Your task to perform on an android device: Open the map Image 0: 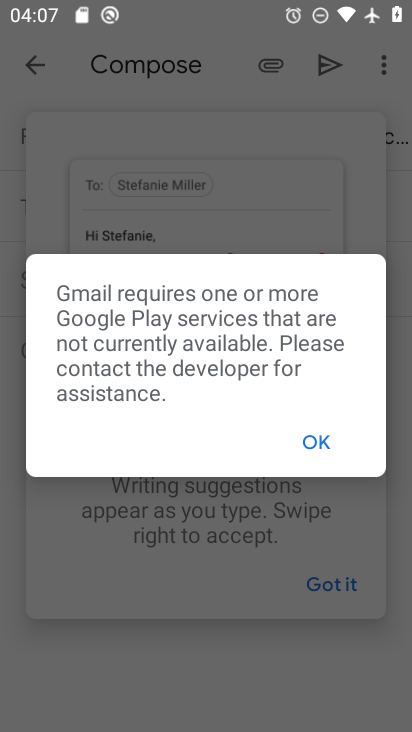
Step 0: press home button
Your task to perform on an android device: Open the map Image 1: 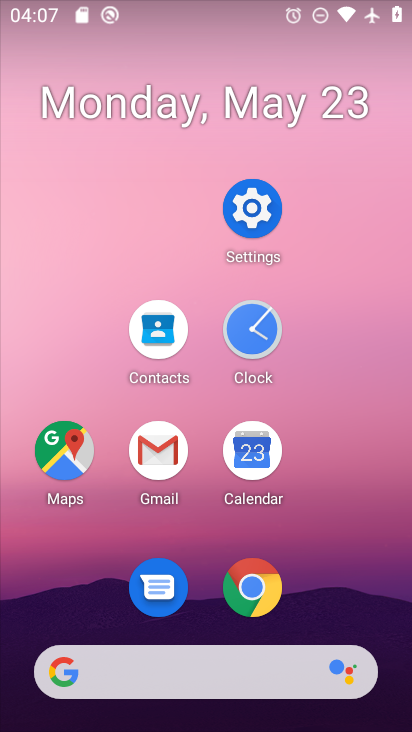
Step 1: click (76, 453)
Your task to perform on an android device: Open the map Image 2: 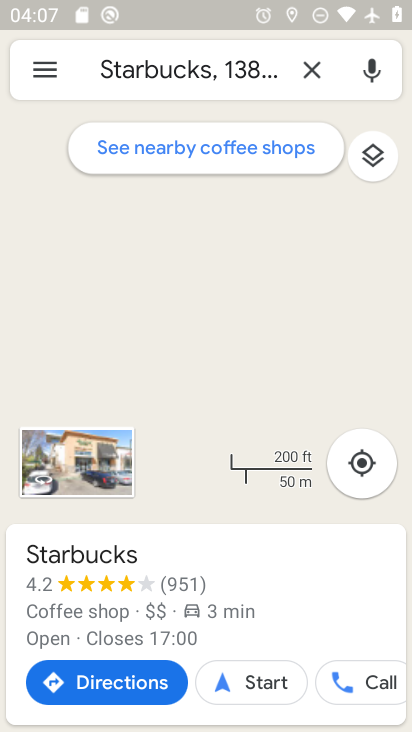
Step 2: task complete